Your task to perform on an android device: Clear the shopping cart on newegg.com. Image 0: 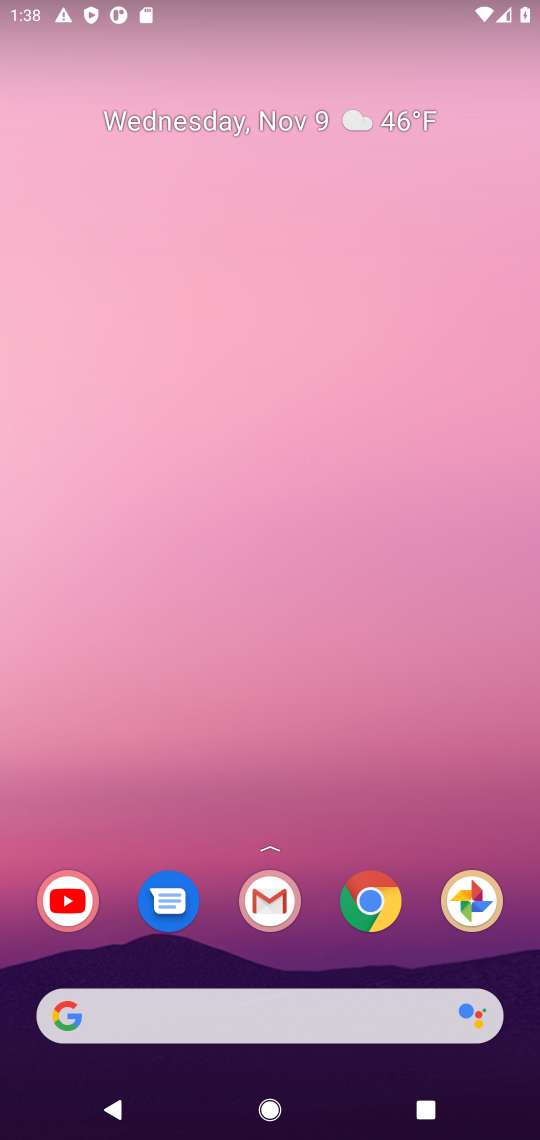
Step 0: click (386, 890)
Your task to perform on an android device: Clear the shopping cart on newegg.com. Image 1: 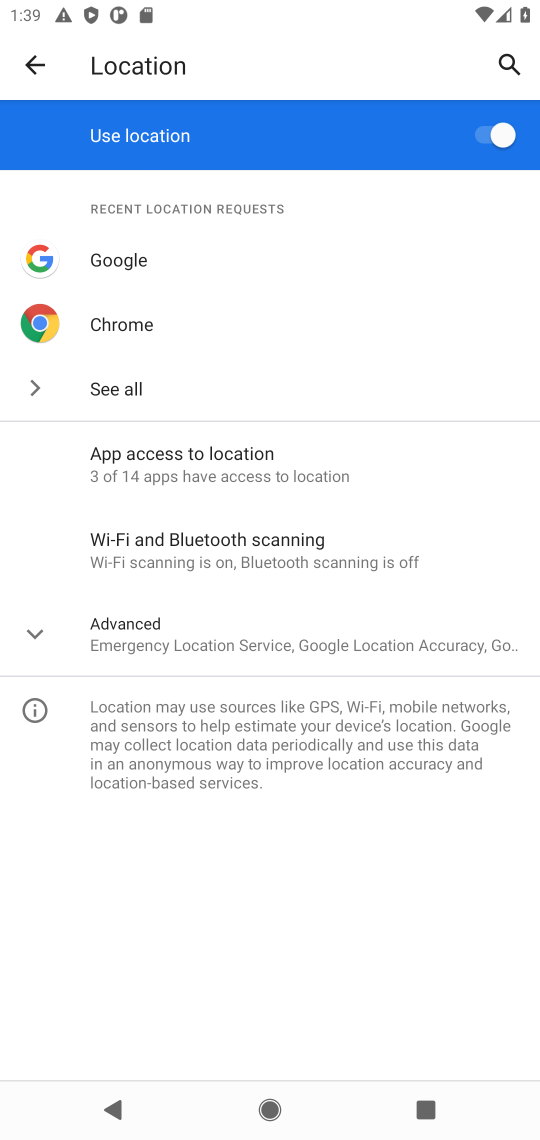
Step 1: press home button
Your task to perform on an android device: Clear the shopping cart on newegg.com. Image 2: 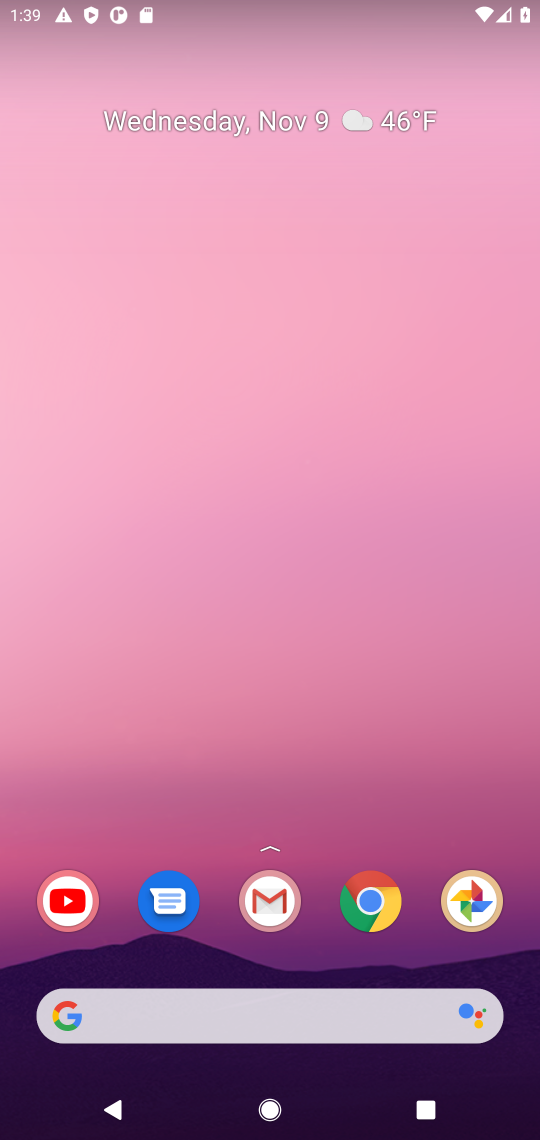
Step 2: click (352, 887)
Your task to perform on an android device: Clear the shopping cart on newegg.com. Image 3: 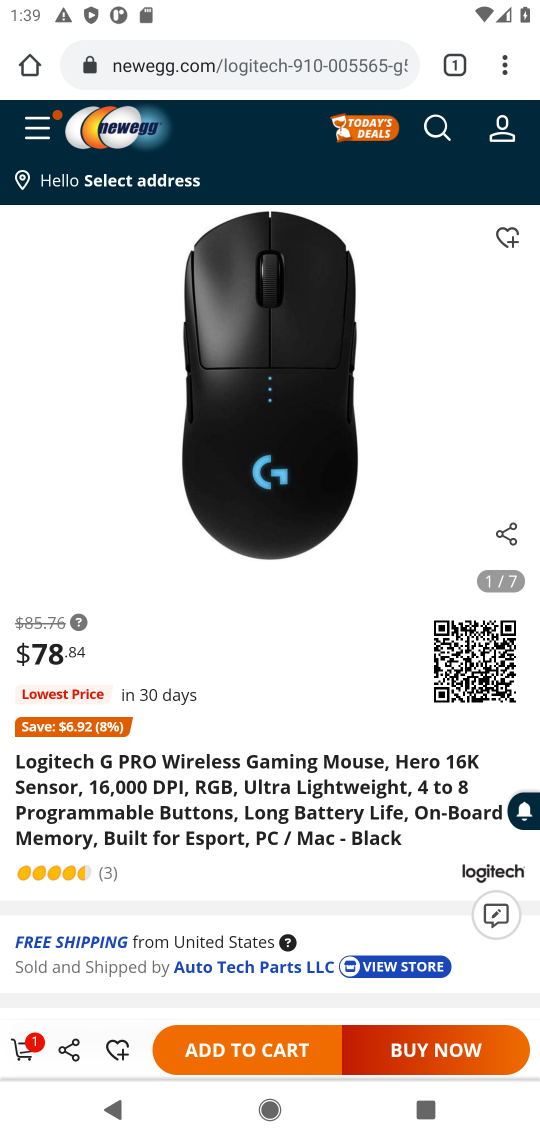
Step 3: click (29, 1062)
Your task to perform on an android device: Clear the shopping cart on newegg.com. Image 4: 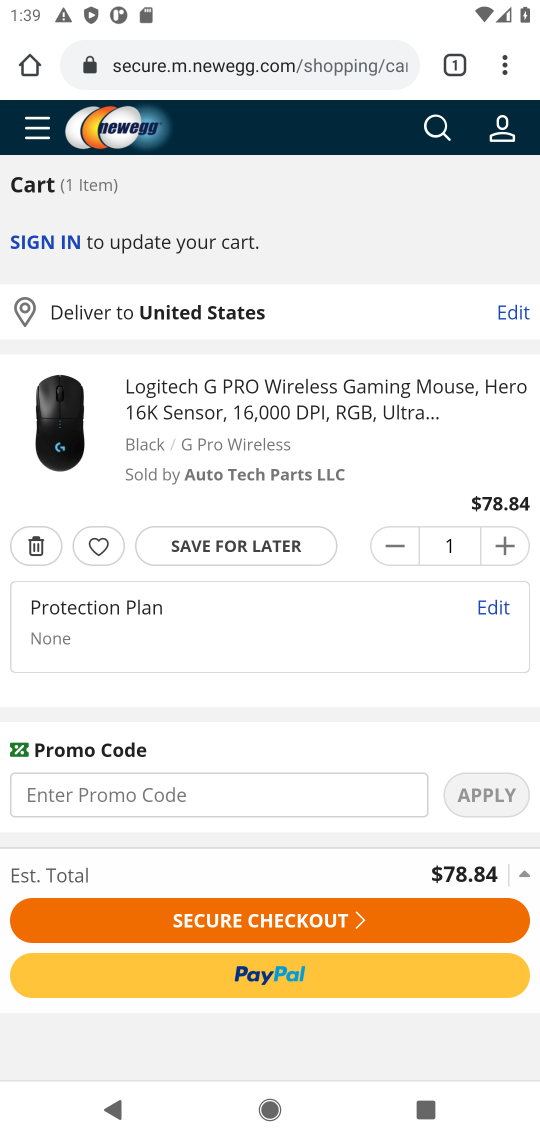
Step 4: click (33, 549)
Your task to perform on an android device: Clear the shopping cart on newegg.com. Image 5: 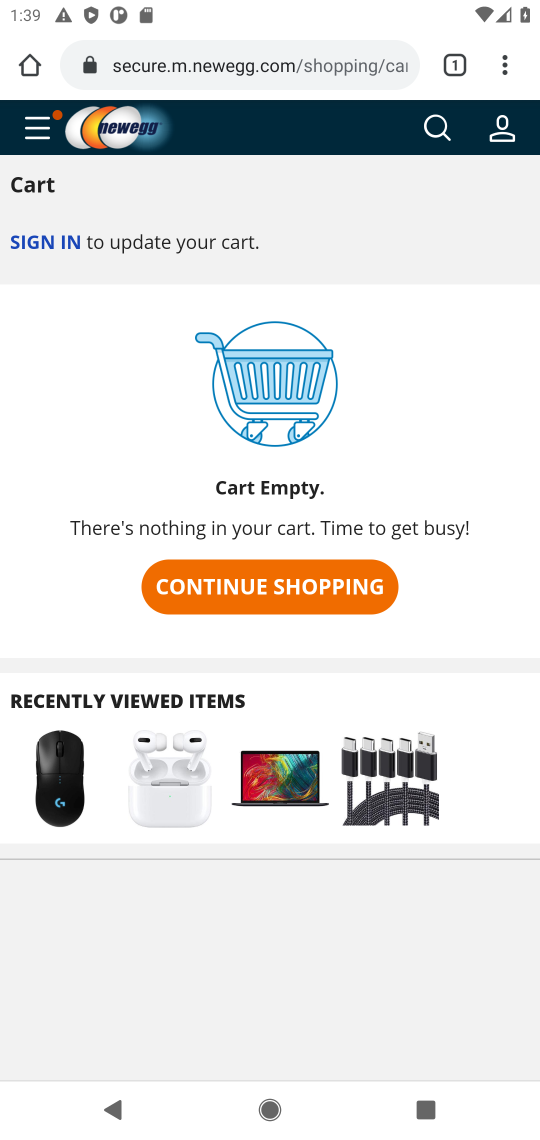
Step 5: task complete